Your task to perform on an android device: uninstall "Google Chrome" Image 0: 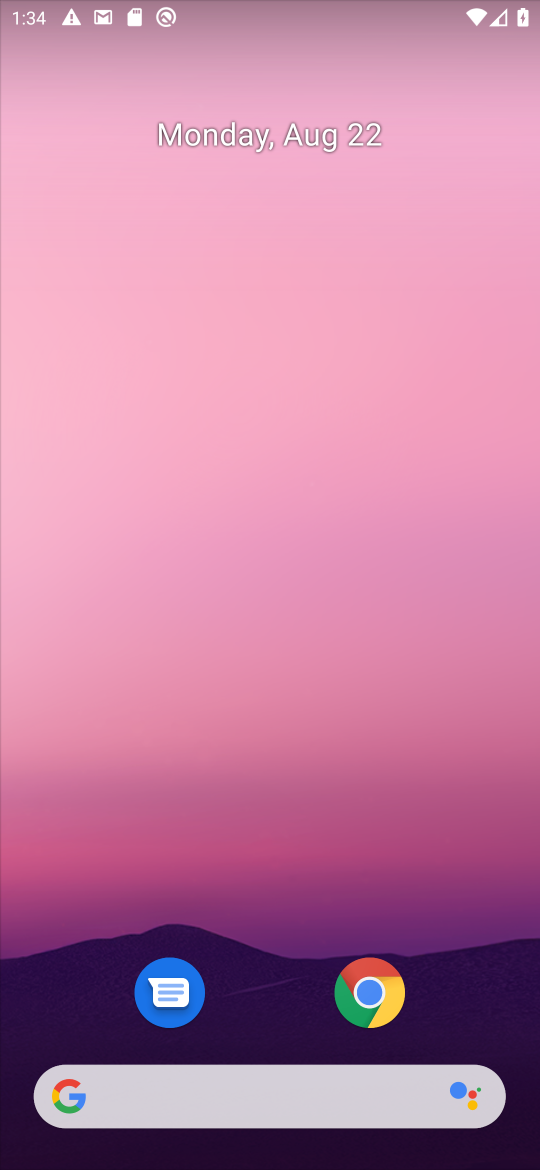
Step 0: click (356, 999)
Your task to perform on an android device: uninstall "Google Chrome" Image 1: 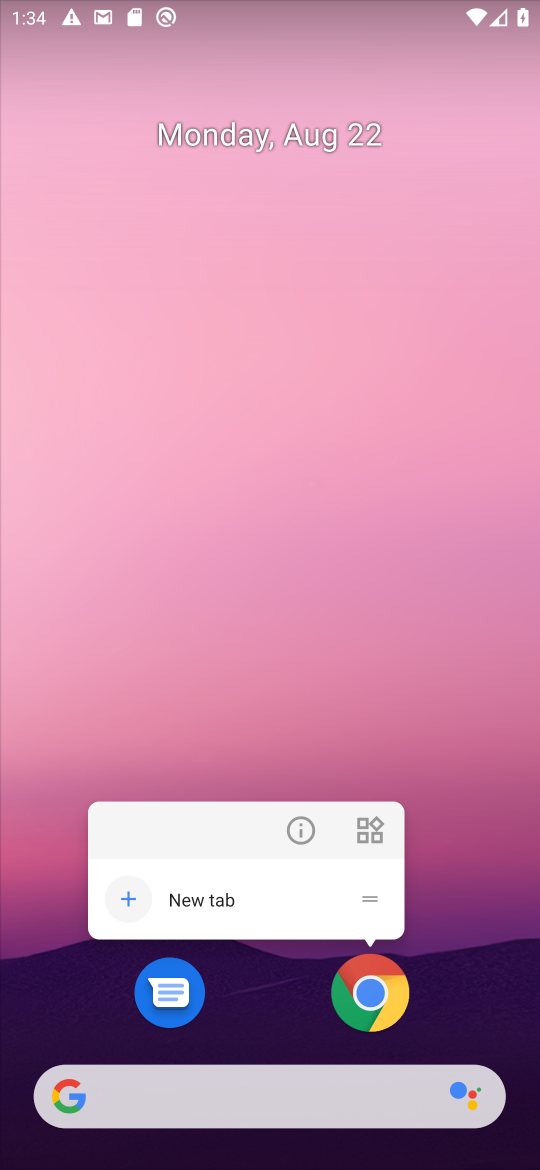
Step 1: click (213, 632)
Your task to perform on an android device: uninstall "Google Chrome" Image 2: 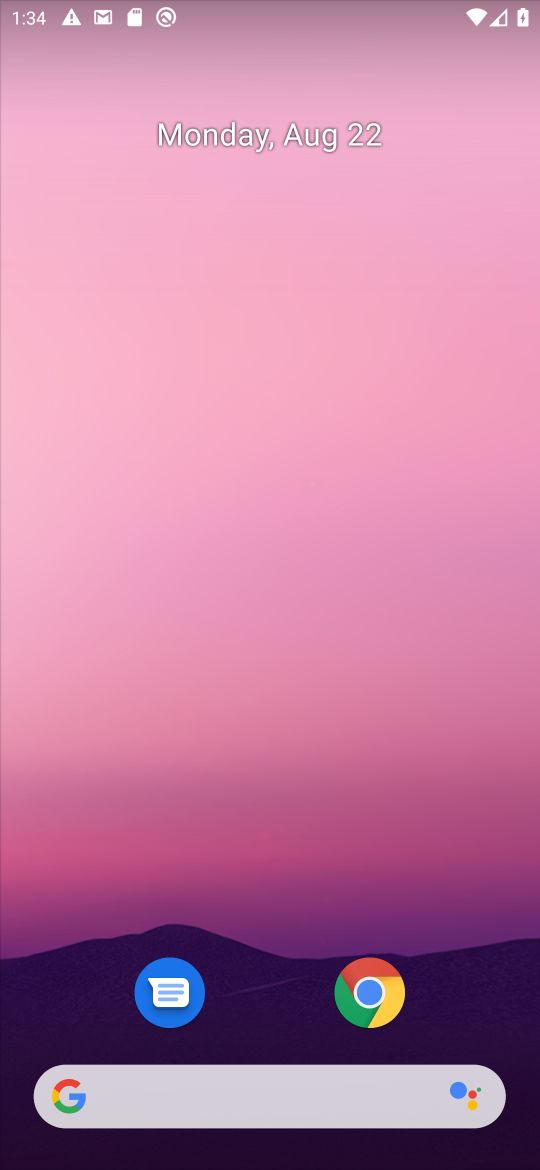
Step 2: task complete